Your task to perform on an android device: open chrome privacy settings Image 0: 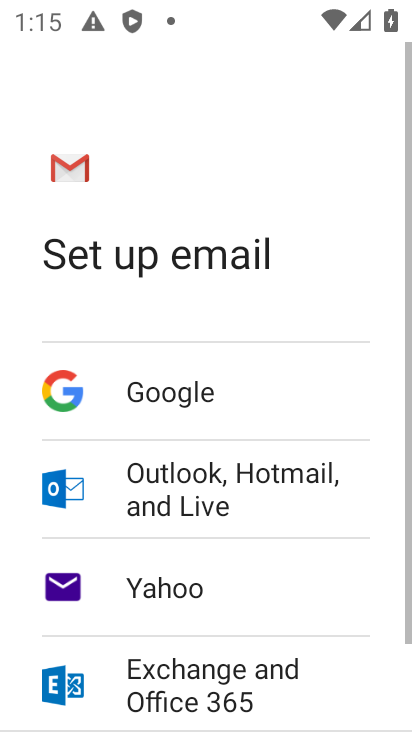
Step 0: press home button
Your task to perform on an android device: open chrome privacy settings Image 1: 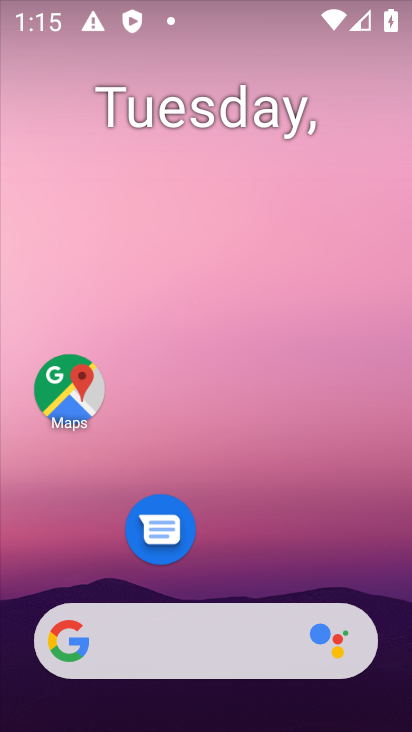
Step 1: drag from (296, 593) to (233, 151)
Your task to perform on an android device: open chrome privacy settings Image 2: 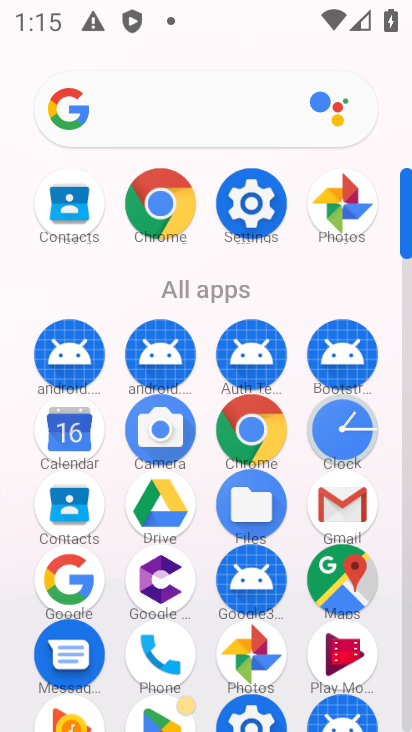
Step 2: click (181, 198)
Your task to perform on an android device: open chrome privacy settings Image 3: 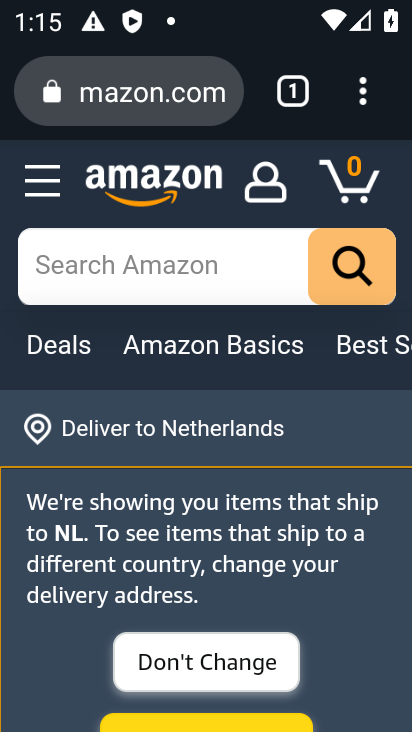
Step 3: click (374, 110)
Your task to perform on an android device: open chrome privacy settings Image 4: 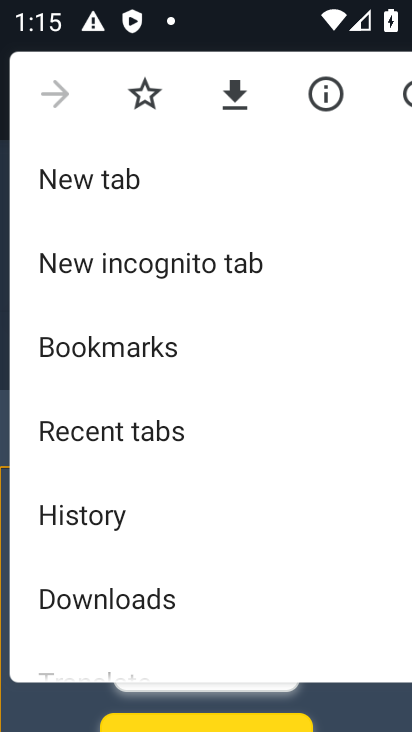
Step 4: drag from (214, 524) to (186, 189)
Your task to perform on an android device: open chrome privacy settings Image 5: 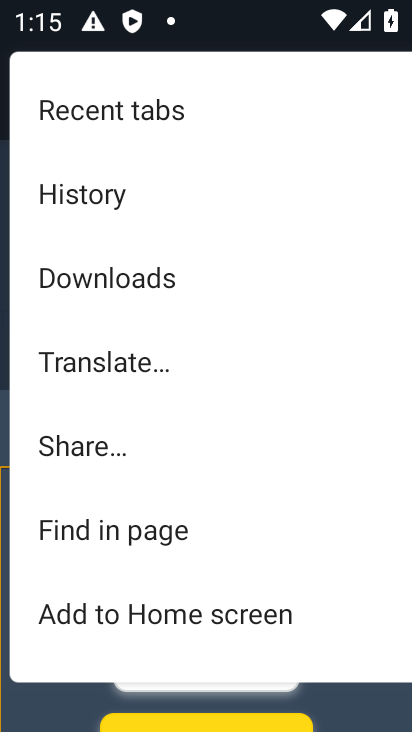
Step 5: drag from (225, 633) to (170, 293)
Your task to perform on an android device: open chrome privacy settings Image 6: 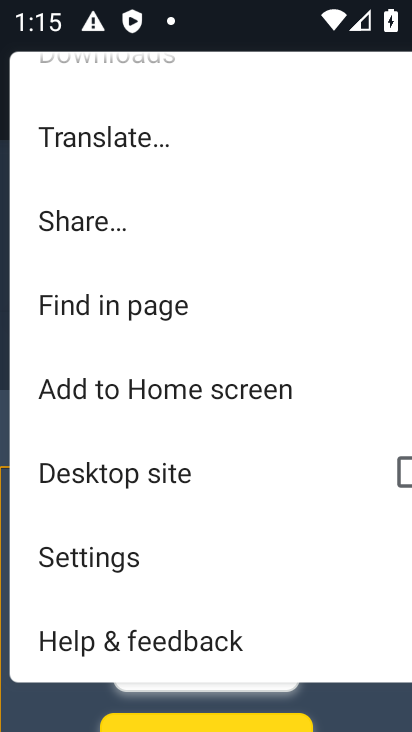
Step 6: click (189, 573)
Your task to perform on an android device: open chrome privacy settings Image 7: 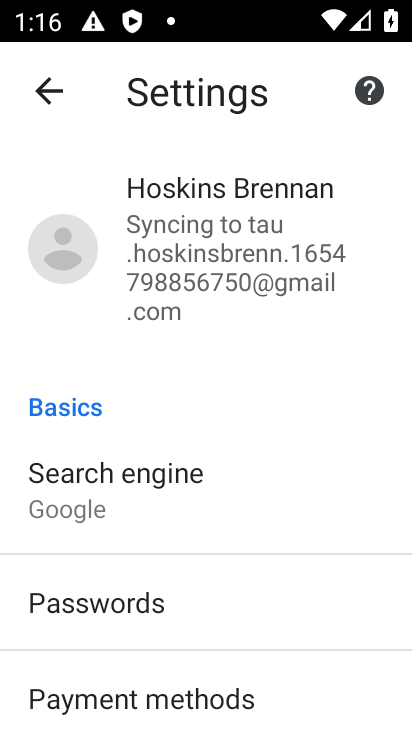
Step 7: drag from (219, 645) to (198, 289)
Your task to perform on an android device: open chrome privacy settings Image 8: 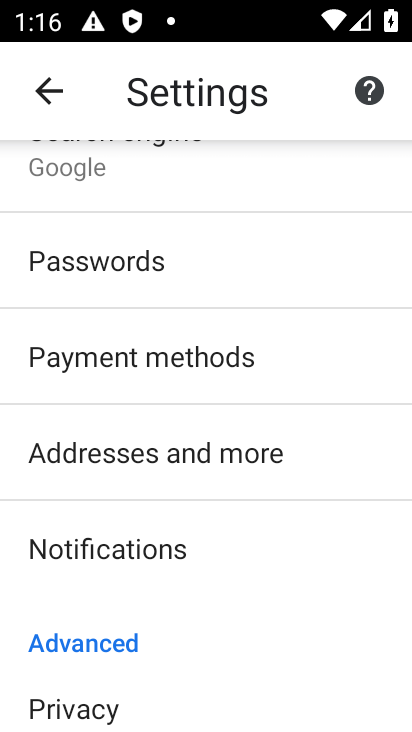
Step 8: click (231, 674)
Your task to perform on an android device: open chrome privacy settings Image 9: 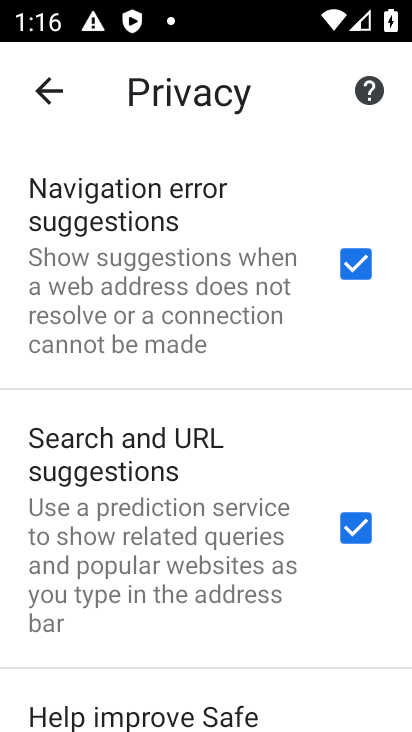
Step 9: task complete